Your task to perform on an android device: Search for "rayovac triple a" on ebay, select the first entry, and add it to the cart. Image 0: 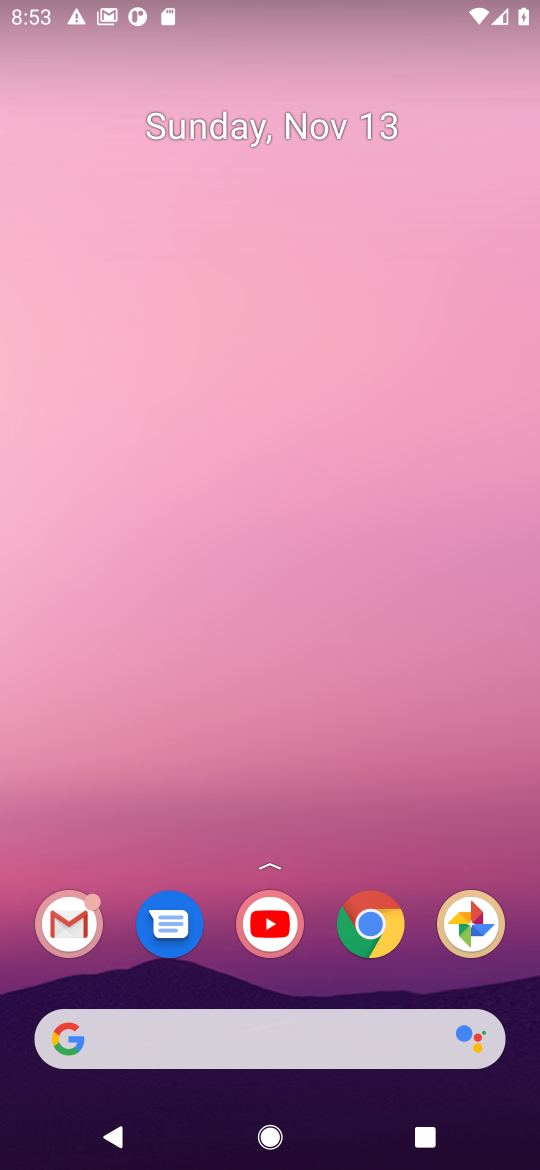
Step 0: click (371, 929)
Your task to perform on an android device: Search for "rayovac triple a" on ebay, select the first entry, and add it to the cart. Image 1: 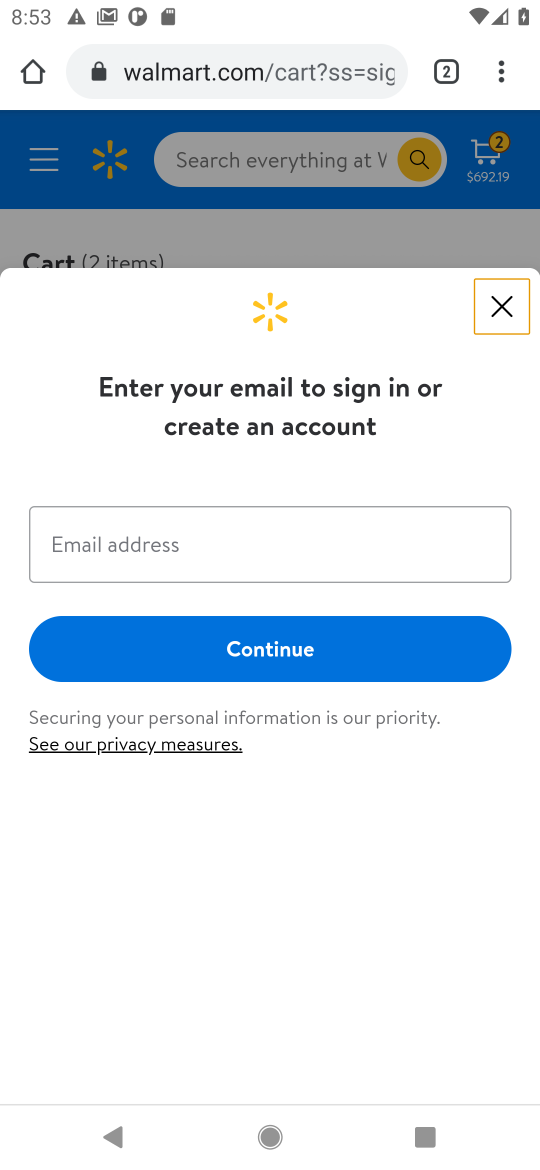
Step 1: click (230, 90)
Your task to perform on an android device: Search for "rayovac triple a" on ebay, select the first entry, and add it to the cart. Image 2: 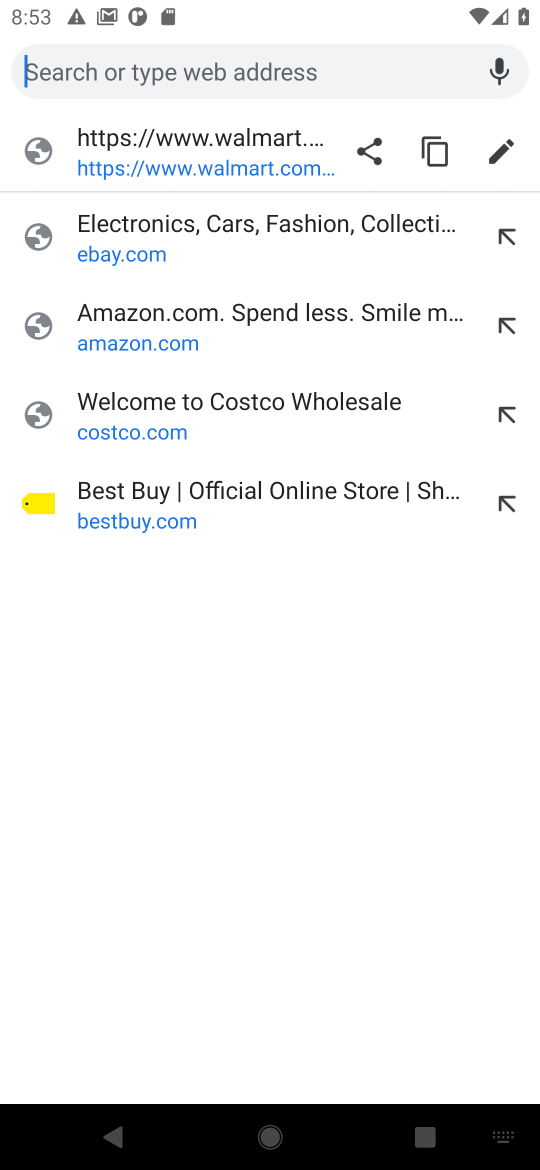
Step 2: click (120, 265)
Your task to perform on an android device: Search for "rayovac triple a" on ebay, select the first entry, and add it to the cart. Image 3: 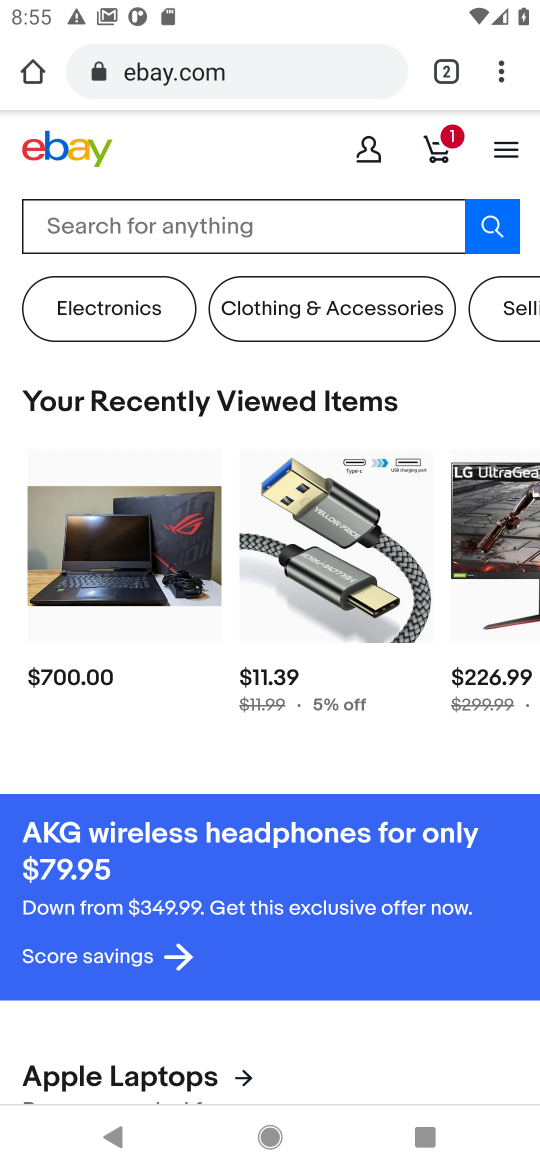
Step 3: click (97, 239)
Your task to perform on an android device: Search for "rayovac triple a" on ebay, select the first entry, and add it to the cart. Image 4: 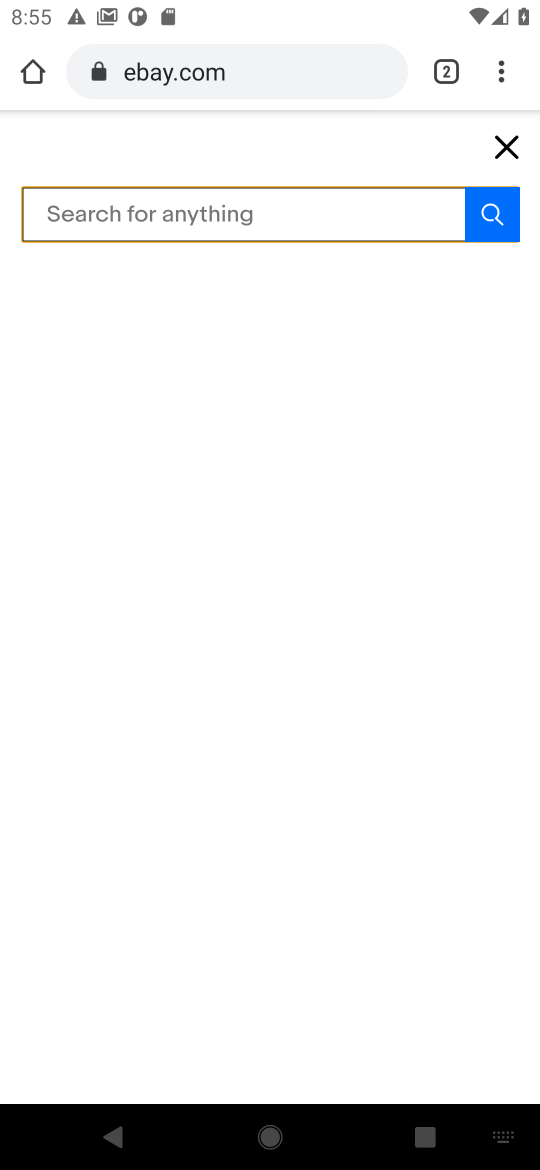
Step 4: type "rayovac triple a"
Your task to perform on an android device: Search for "rayovac triple a" on ebay, select the first entry, and add it to the cart. Image 5: 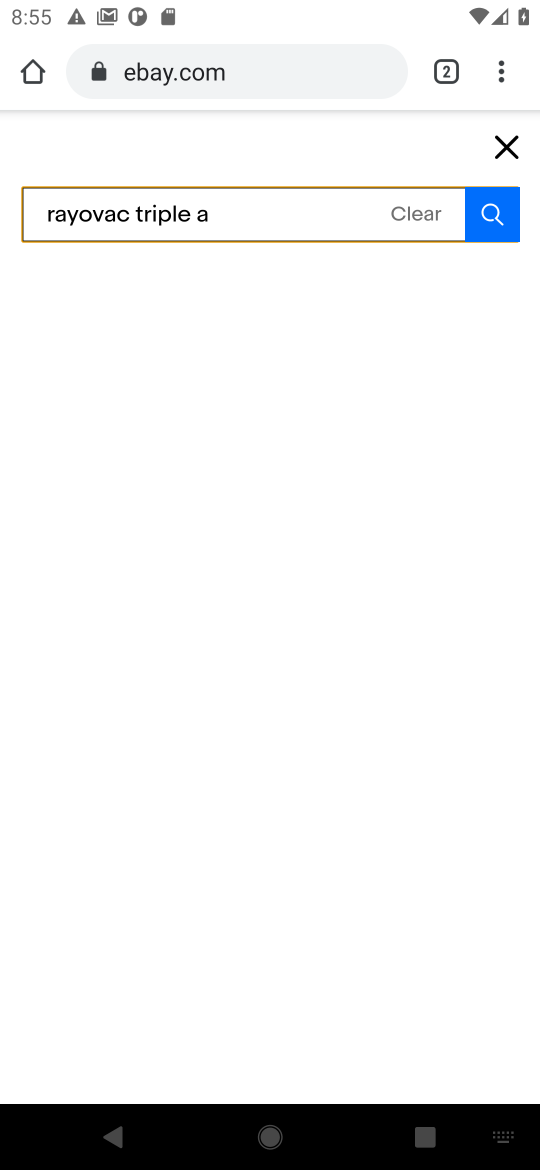
Step 5: click (495, 221)
Your task to perform on an android device: Search for "rayovac triple a" on ebay, select the first entry, and add it to the cart. Image 6: 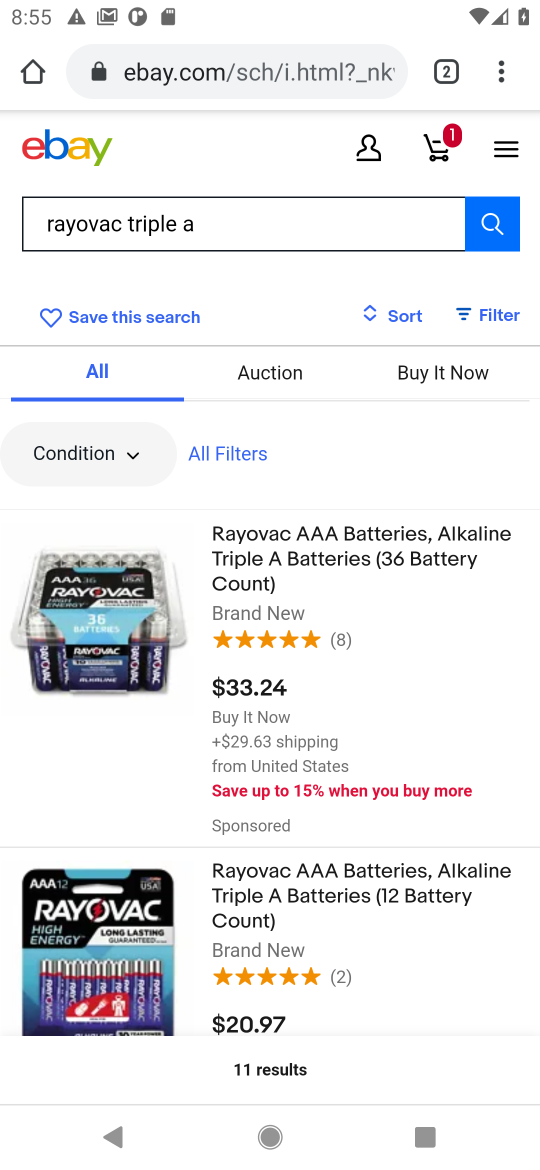
Step 6: click (90, 678)
Your task to perform on an android device: Search for "rayovac triple a" on ebay, select the first entry, and add it to the cart. Image 7: 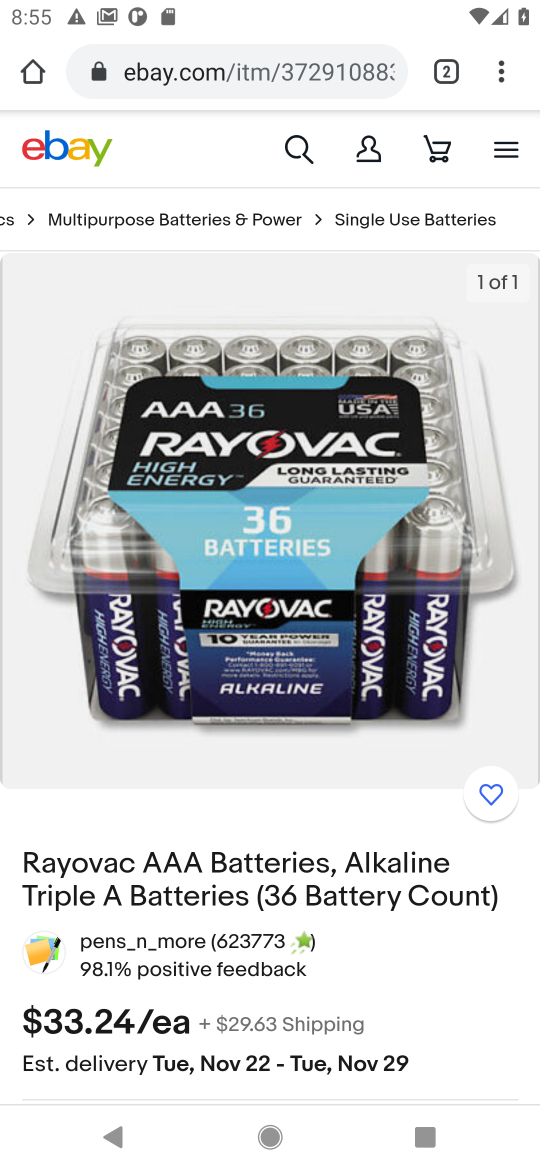
Step 7: drag from (194, 840) to (198, 309)
Your task to perform on an android device: Search for "rayovac triple a" on ebay, select the first entry, and add it to the cart. Image 8: 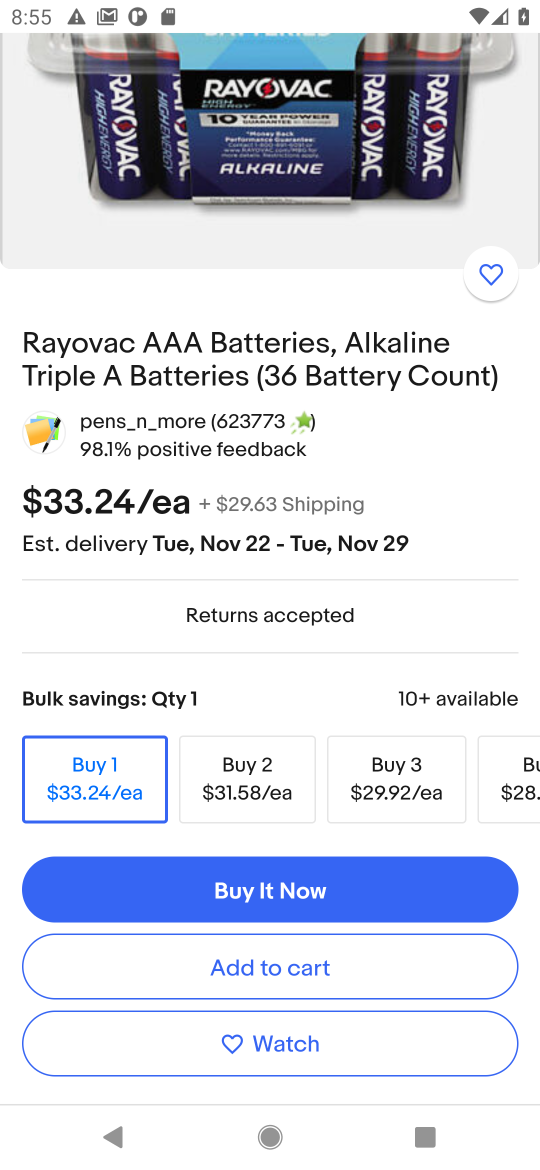
Step 8: click (254, 966)
Your task to perform on an android device: Search for "rayovac triple a" on ebay, select the first entry, and add it to the cart. Image 9: 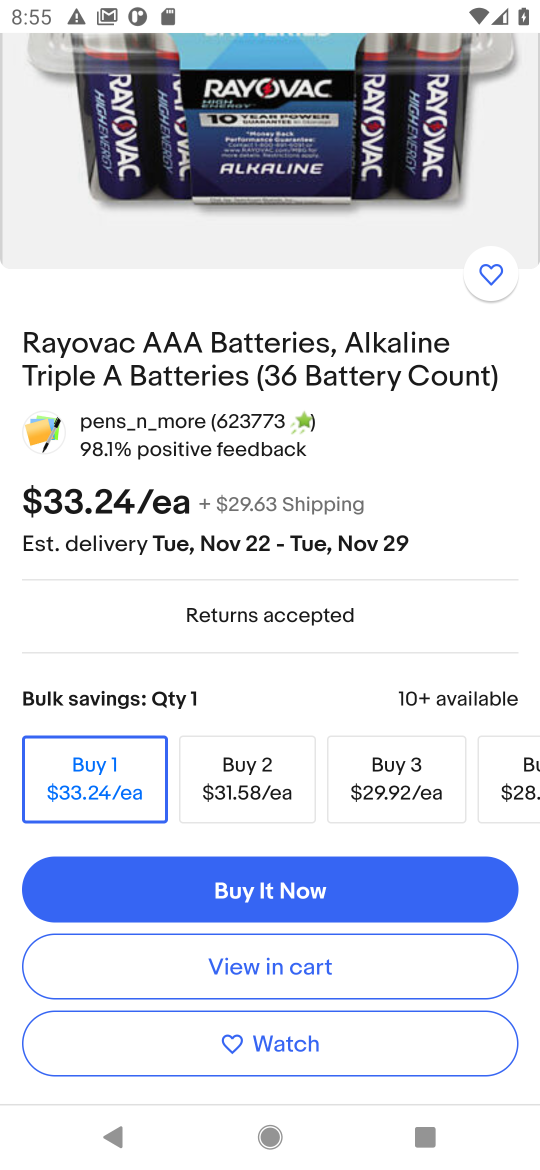
Step 9: task complete